Your task to perform on an android device: Search for good Italian restaurants on Maps Image 0: 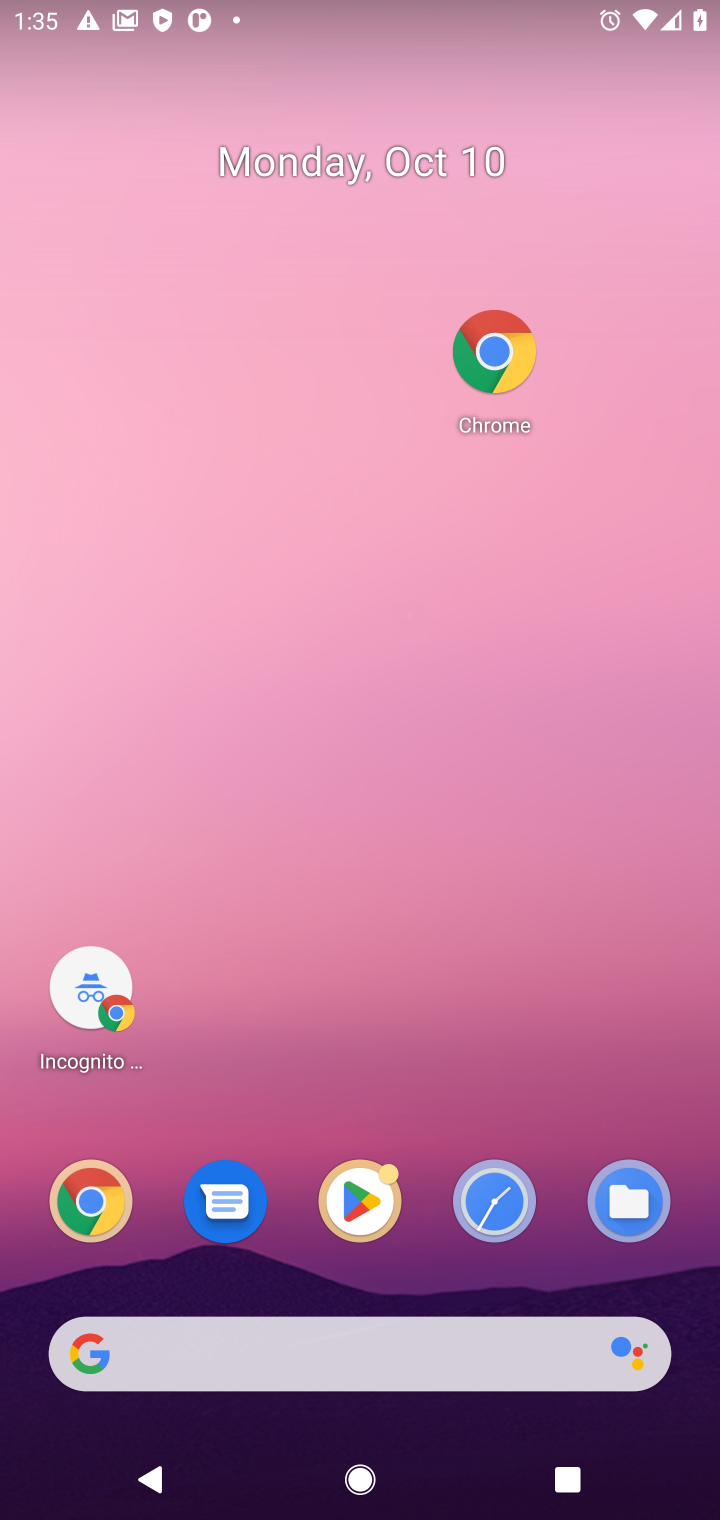
Step 0: drag from (377, 1013) to (349, 72)
Your task to perform on an android device: Search for good Italian restaurants on Maps Image 1: 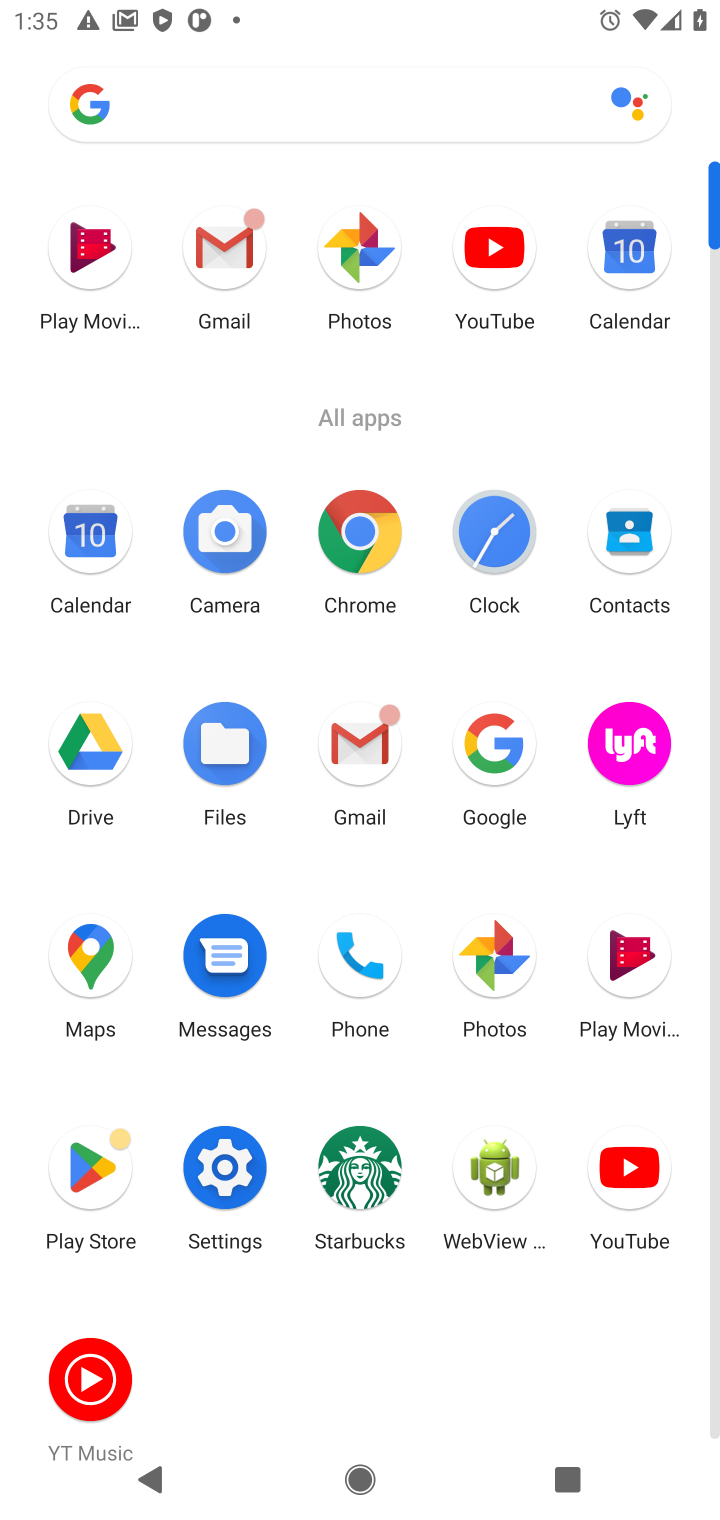
Step 1: click (76, 965)
Your task to perform on an android device: Search for good Italian restaurants on Maps Image 2: 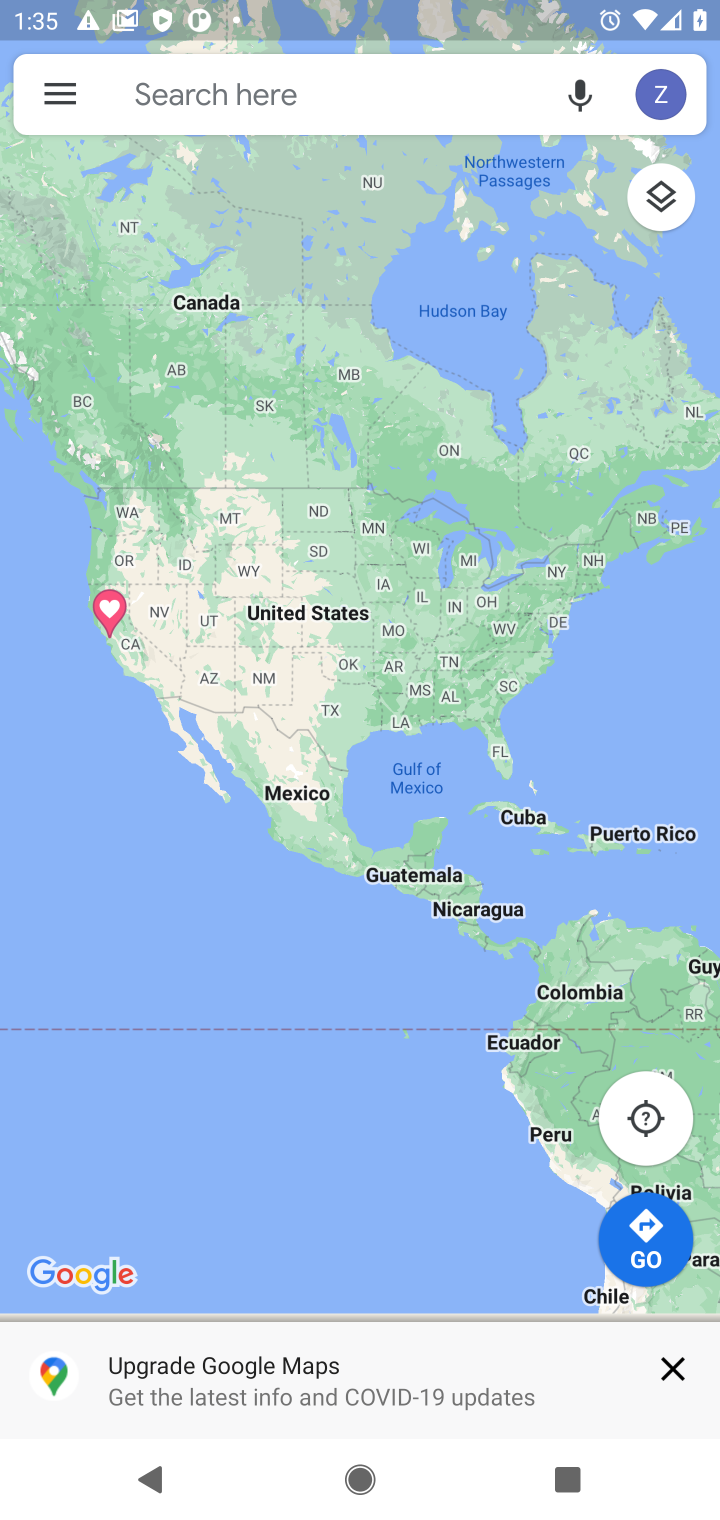
Step 2: click (157, 79)
Your task to perform on an android device: Search for good Italian restaurants on Maps Image 3: 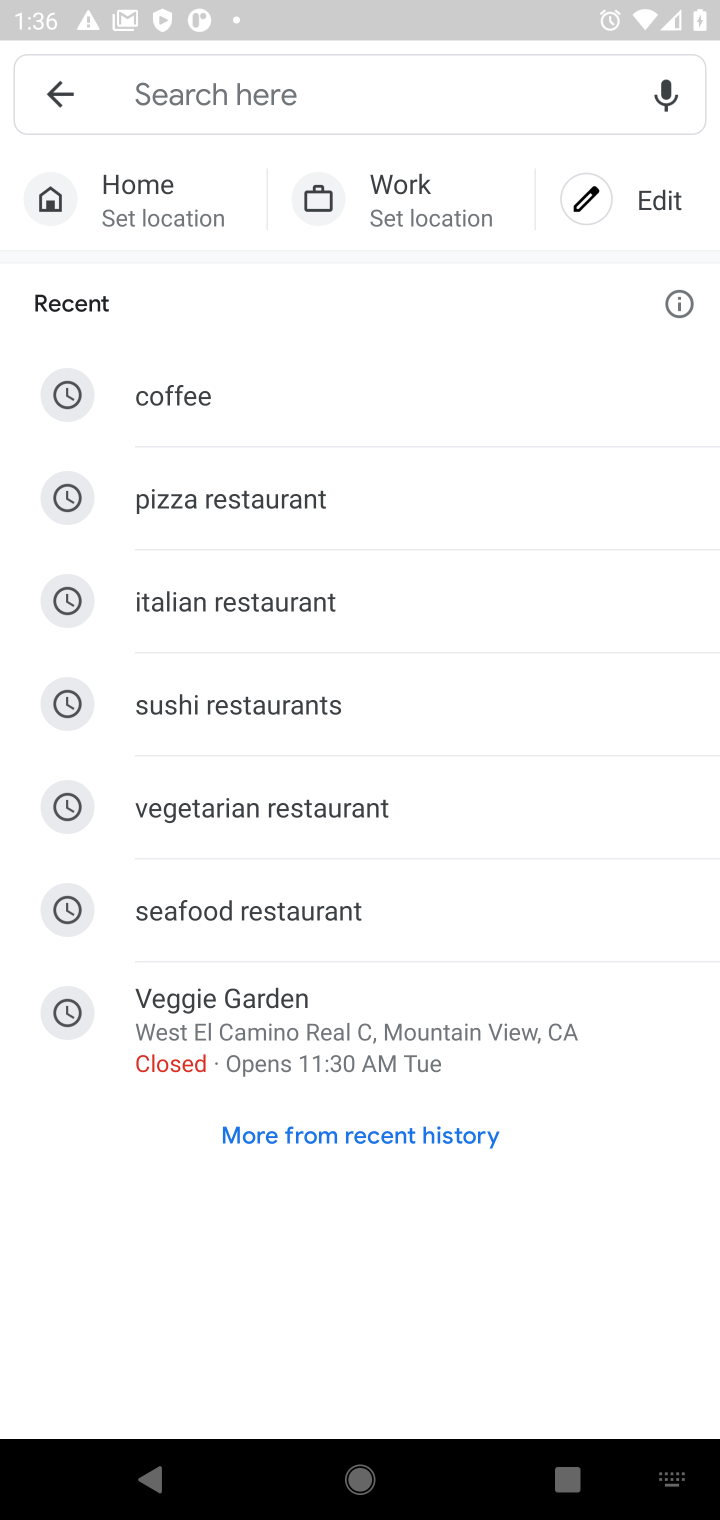
Step 3: type "good Italian restaurants"
Your task to perform on an android device: Search for good Italian restaurants on Maps Image 4: 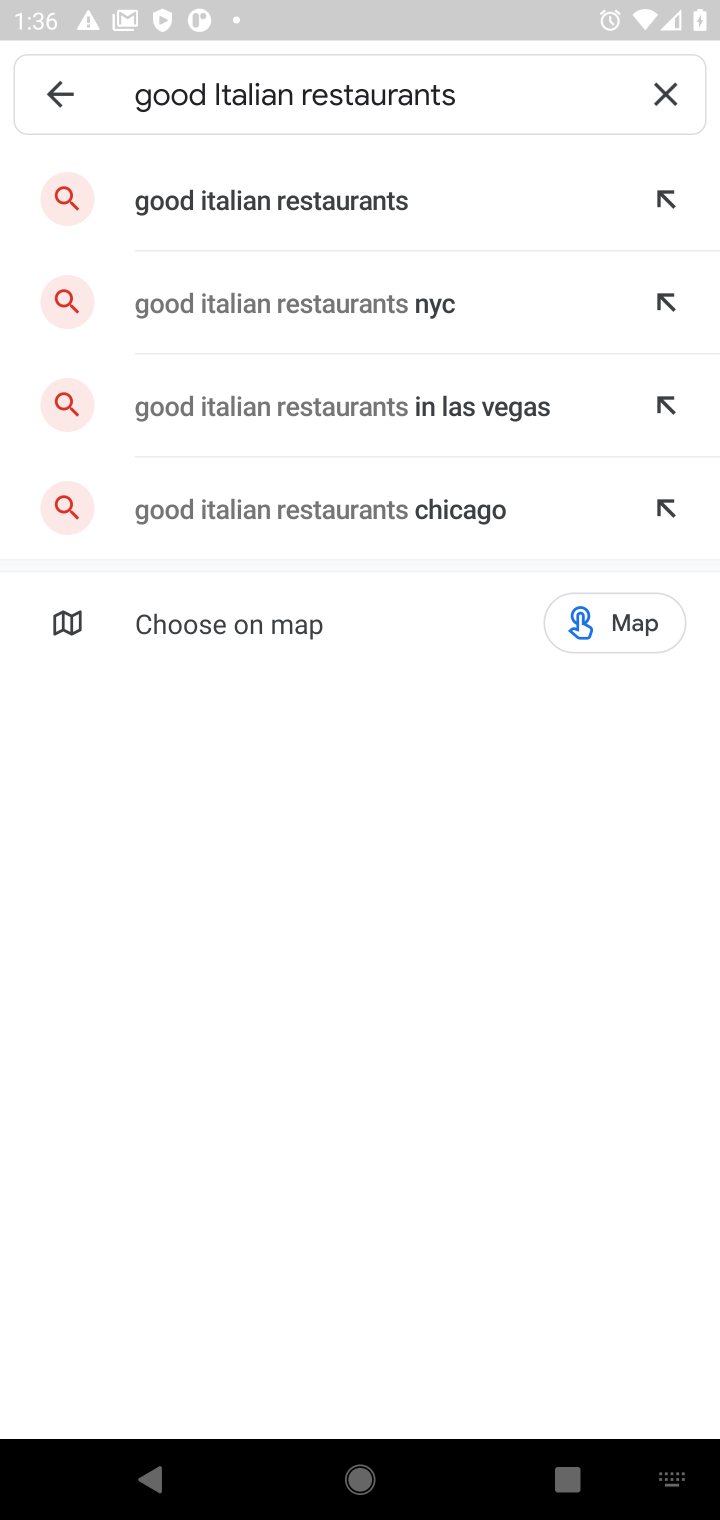
Step 4: click (309, 208)
Your task to perform on an android device: Search for good Italian restaurants on Maps Image 5: 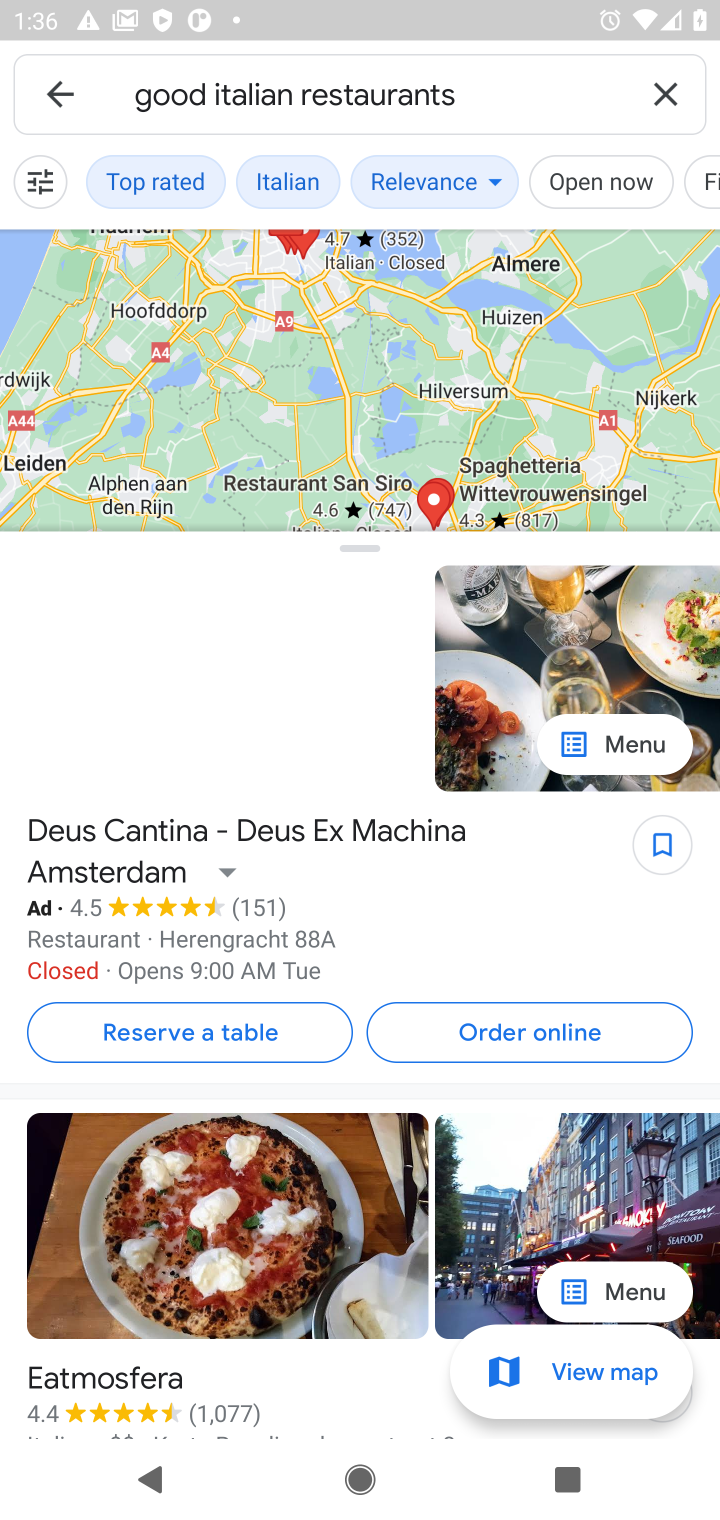
Step 5: task complete